Your task to perform on an android device: Search for good Greek restaurants Image 0: 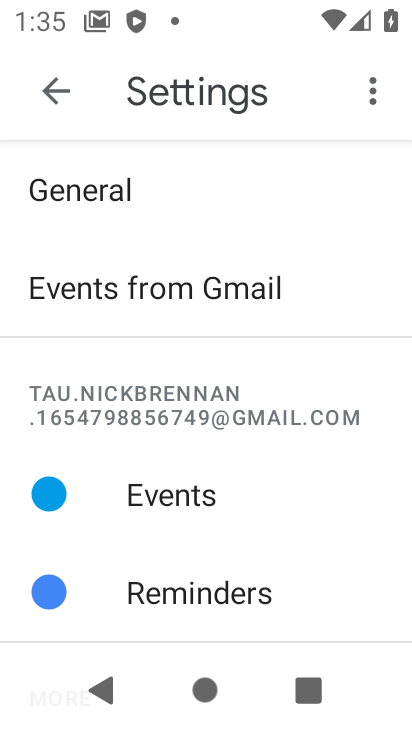
Step 0: press home button
Your task to perform on an android device: Search for good Greek restaurants Image 1: 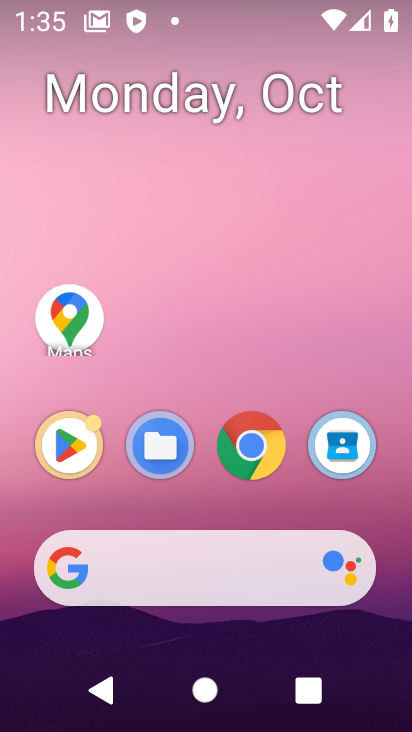
Step 1: click (167, 553)
Your task to perform on an android device: Search for good Greek restaurants Image 2: 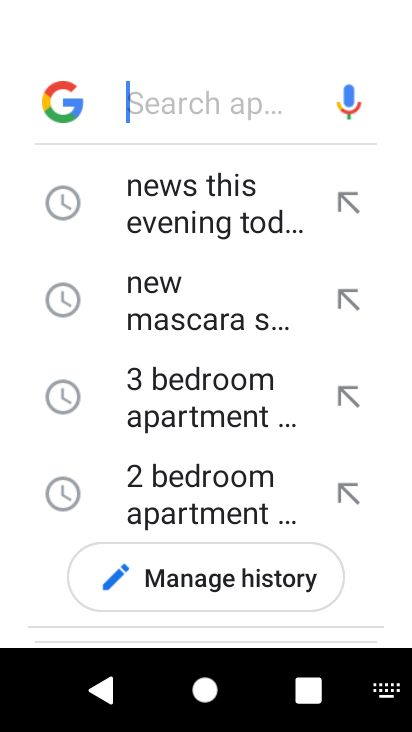
Step 2: type "good Greek restaurants"
Your task to perform on an android device: Search for good Greek restaurants Image 3: 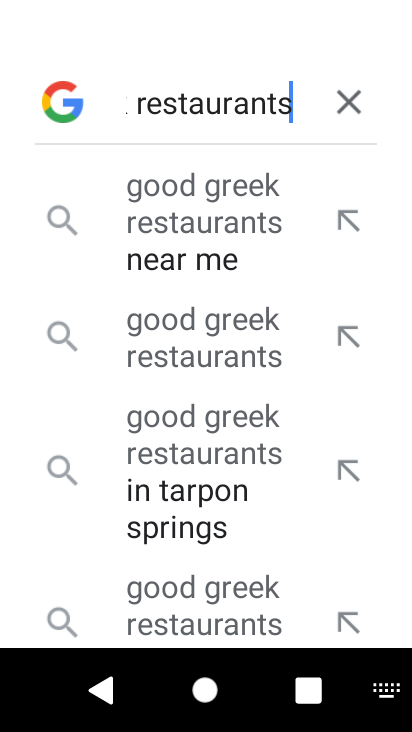
Step 3: type ""
Your task to perform on an android device: Search for good Greek restaurants Image 4: 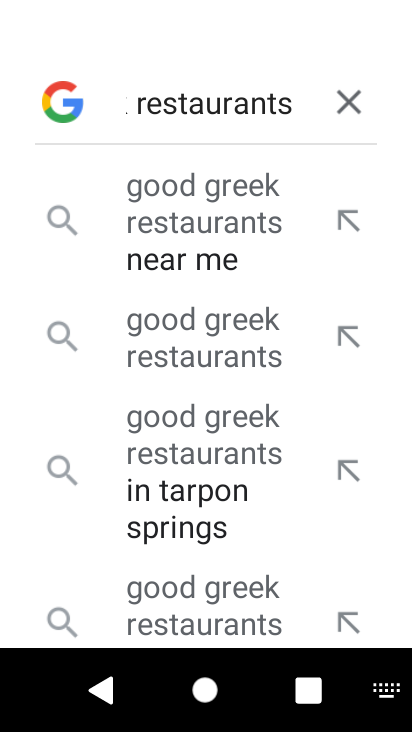
Step 4: click (263, 268)
Your task to perform on an android device: Search for good Greek restaurants Image 5: 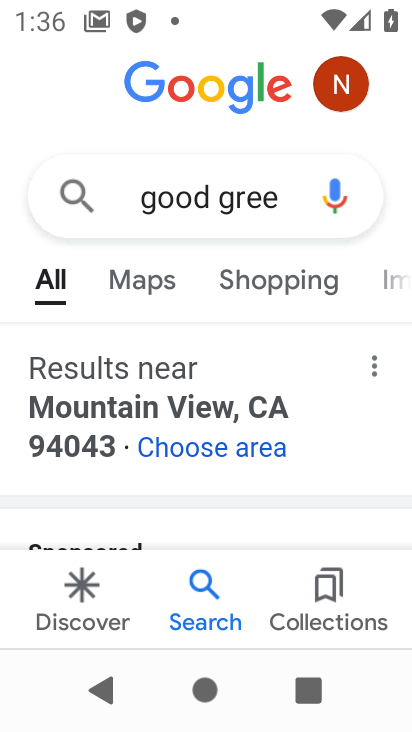
Step 5: task complete